Your task to perform on an android device: Is it going to rain this weekend? Image 0: 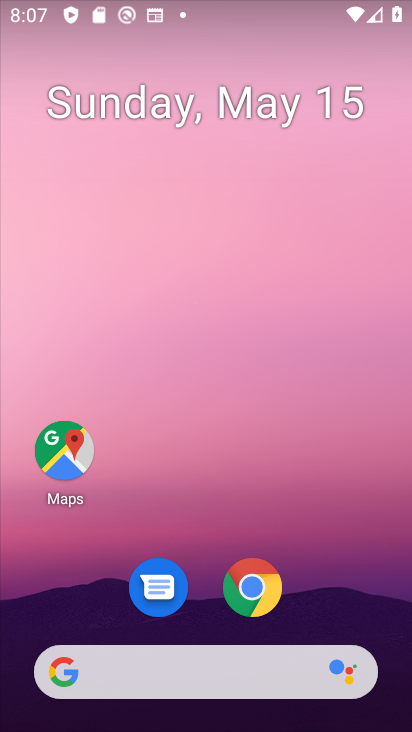
Step 0: click (255, 595)
Your task to perform on an android device: Is it going to rain this weekend? Image 1: 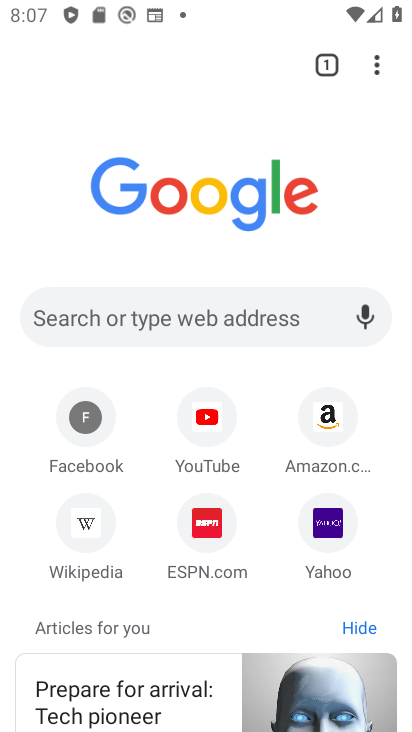
Step 1: click (202, 317)
Your task to perform on an android device: Is it going to rain this weekend? Image 2: 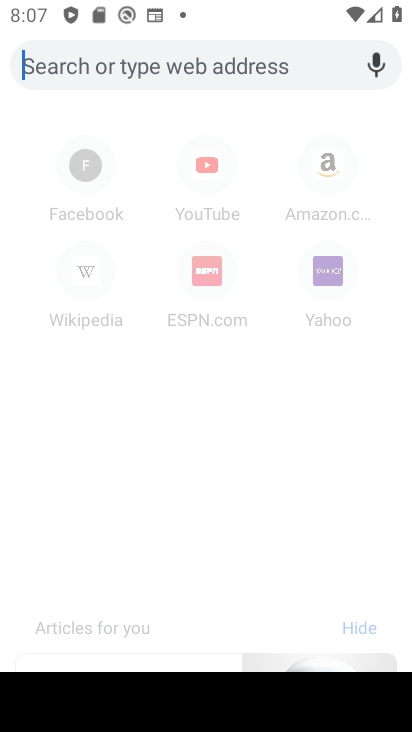
Step 2: type "Is it going to rain this weekend?"
Your task to perform on an android device: Is it going to rain this weekend? Image 3: 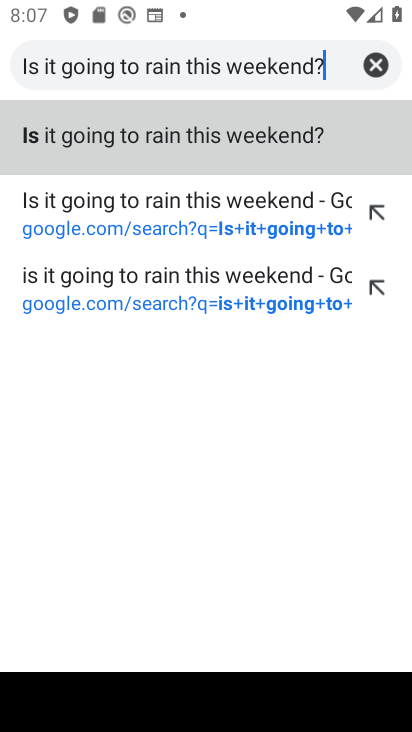
Step 3: click (176, 152)
Your task to perform on an android device: Is it going to rain this weekend? Image 4: 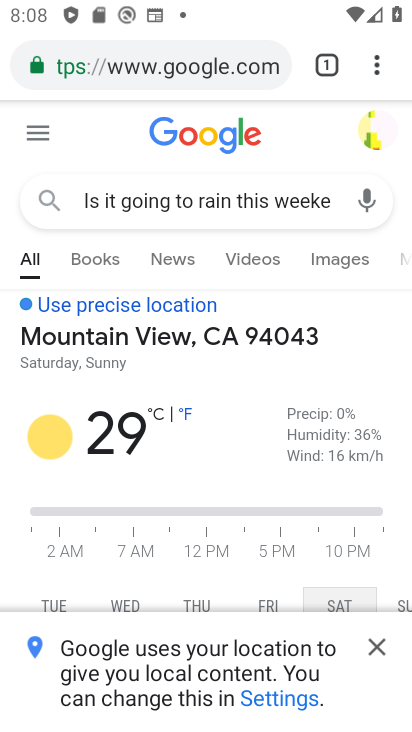
Step 4: task complete